Your task to perform on an android device: all mails in gmail Image 0: 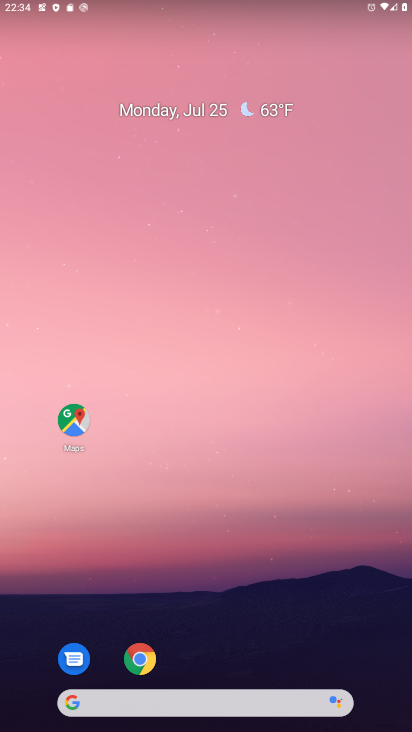
Step 0: drag from (197, 719) to (184, 74)
Your task to perform on an android device: all mails in gmail Image 1: 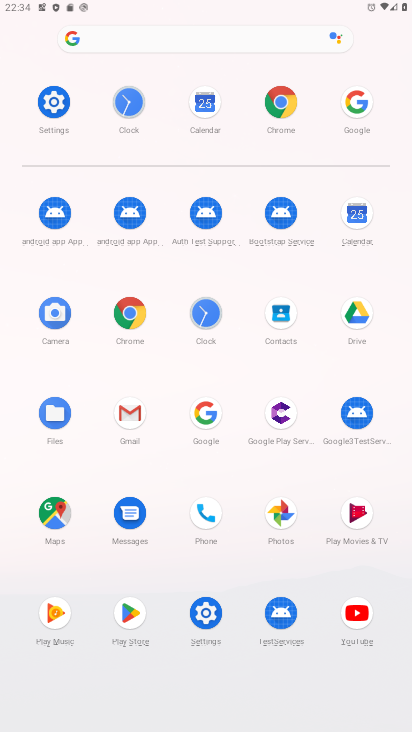
Step 1: click (128, 416)
Your task to perform on an android device: all mails in gmail Image 2: 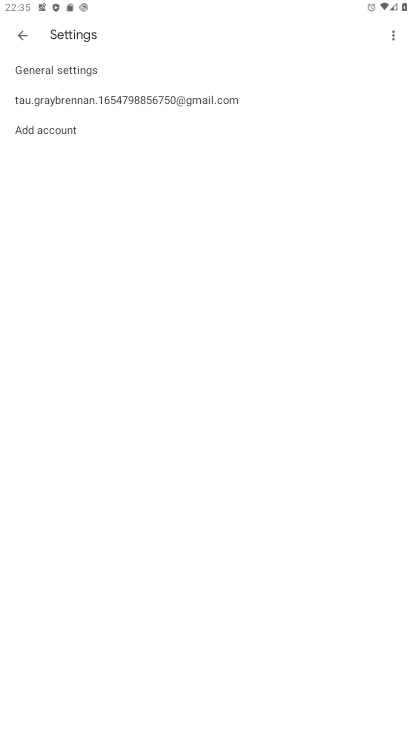
Step 2: click (19, 32)
Your task to perform on an android device: all mails in gmail Image 3: 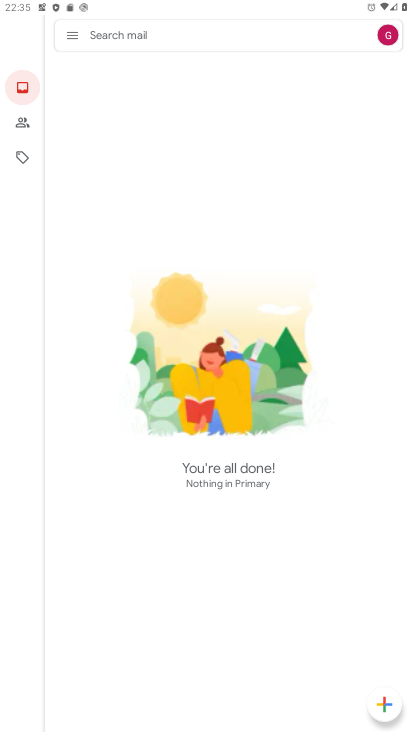
Step 3: click (70, 32)
Your task to perform on an android device: all mails in gmail Image 4: 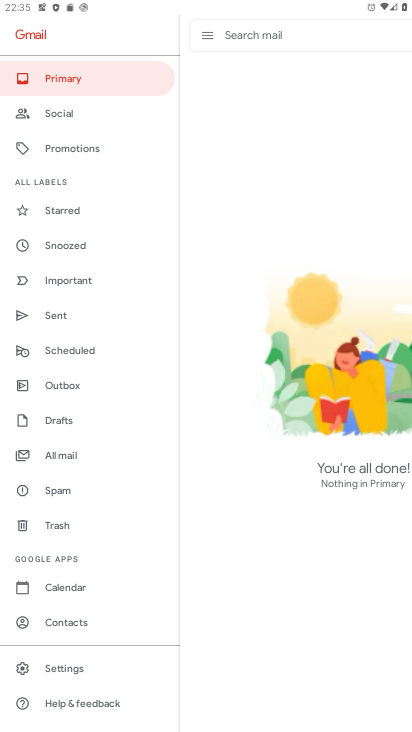
Step 4: click (66, 455)
Your task to perform on an android device: all mails in gmail Image 5: 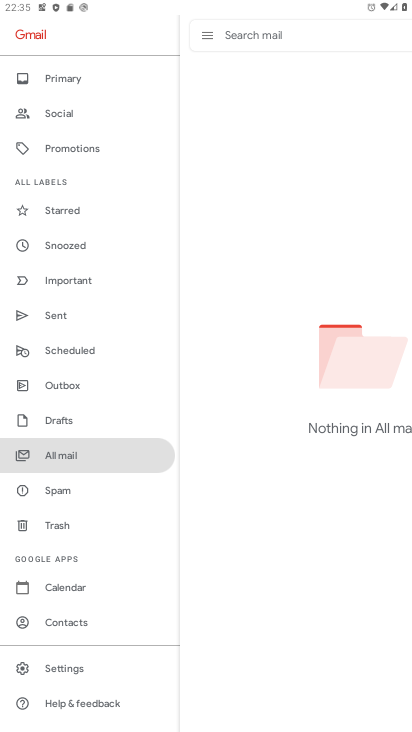
Step 5: task complete